Your task to perform on an android device: Go to wifi settings Image 0: 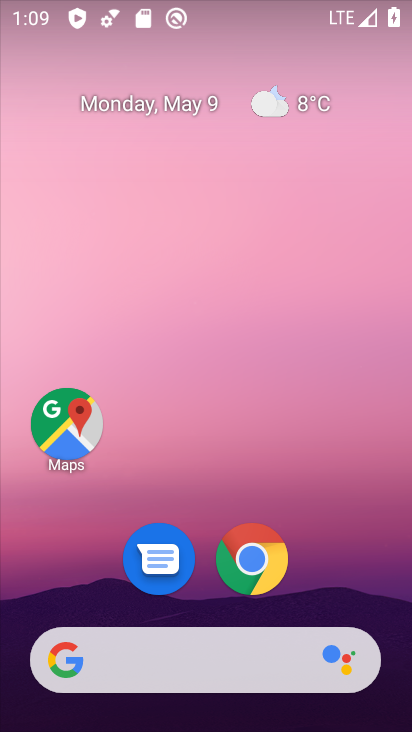
Step 0: drag from (321, 578) to (198, 34)
Your task to perform on an android device: Go to wifi settings Image 1: 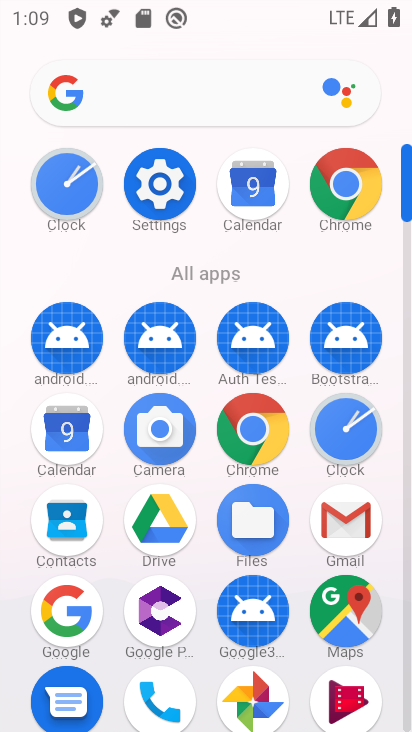
Step 1: click (156, 182)
Your task to perform on an android device: Go to wifi settings Image 2: 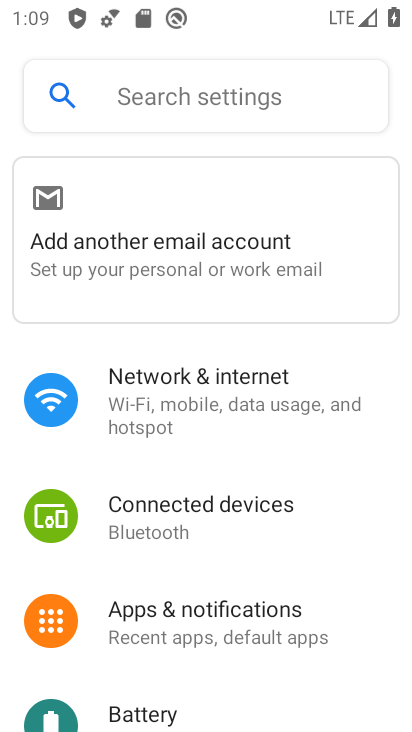
Step 2: click (151, 388)
Your task to perform on an android device: Go to wifi settings Image 3: 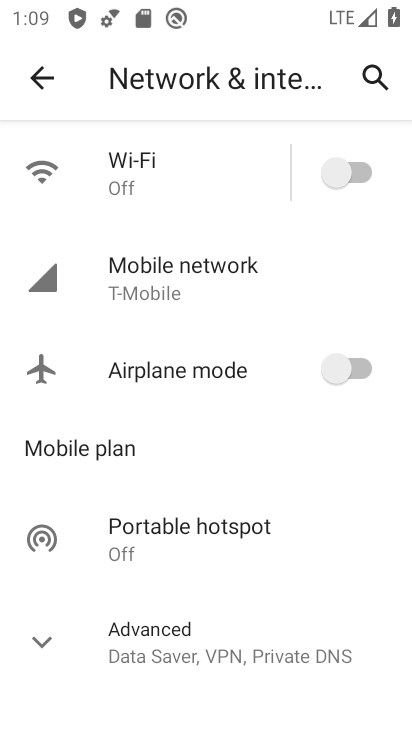
Step 3: click (124, 160)
Your task to perform on an android device: Go to wifi settings Image 4: 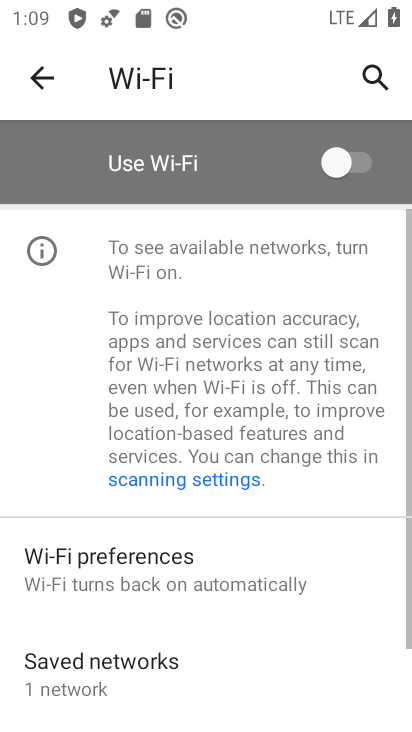
Step 4: task complete